Your task to perform on an android device: Go to Maps Image 0: 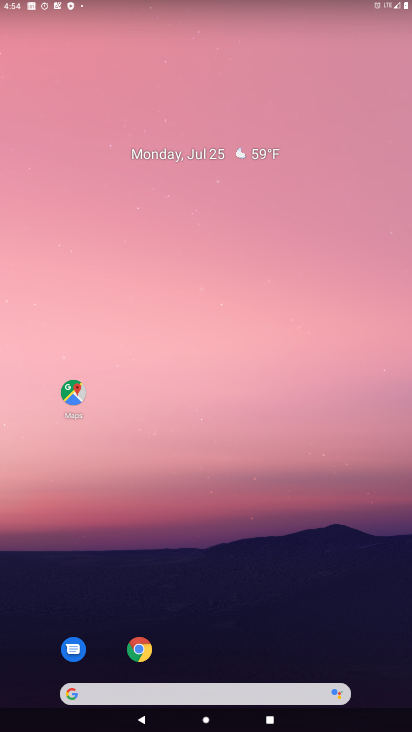
Step 0: drag from (293, 633) to (246, 228)
Your task to perform on an android device: Go to Maps Image 1: 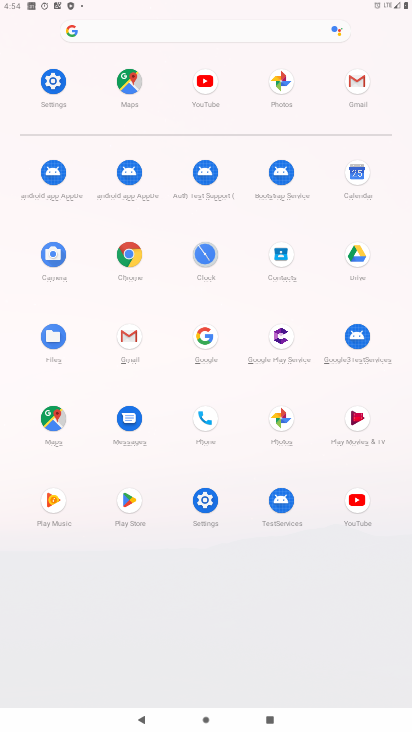
Step 1: click (127, 84)
Your task to perform on an android device: Go to Maps Image 2: 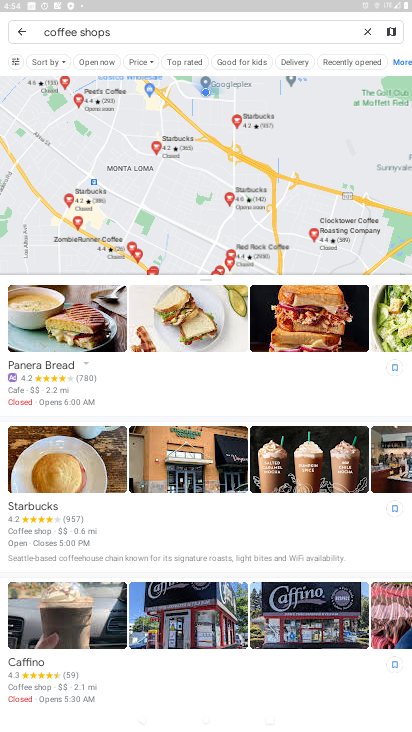
Step 2: task complete